Your task to perform on an android device: make emails show in primary in the gmail app Image 0: 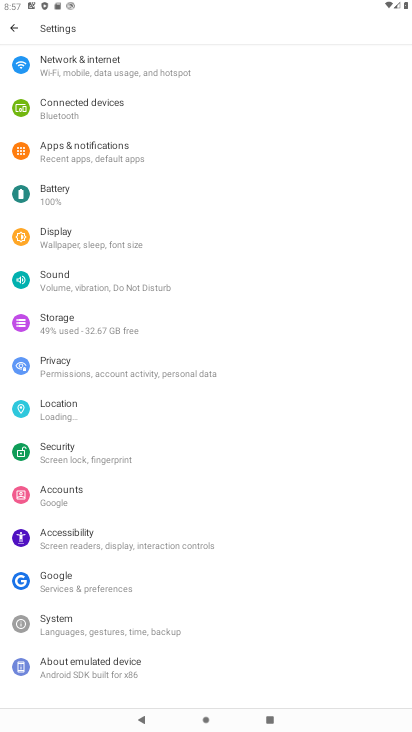
Step 0: press home button
Your task to perform on an android device: make emails show in primary in the gmail app Image 1: 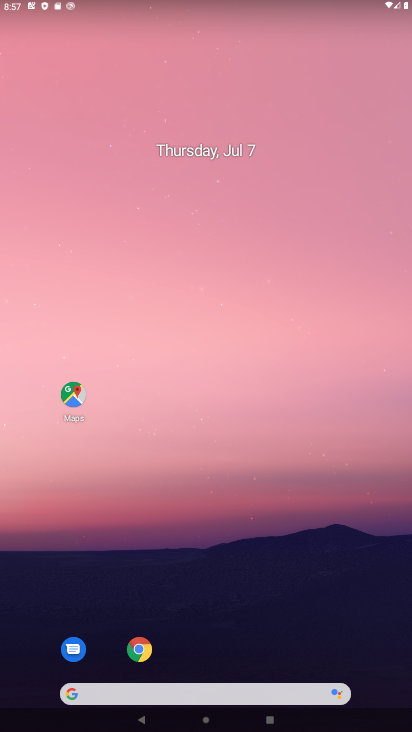
Step 1: drag from (230, 720) to (224, 168)
Your task to perform on an android device: make emails show in primary in the gmail app Image 2: 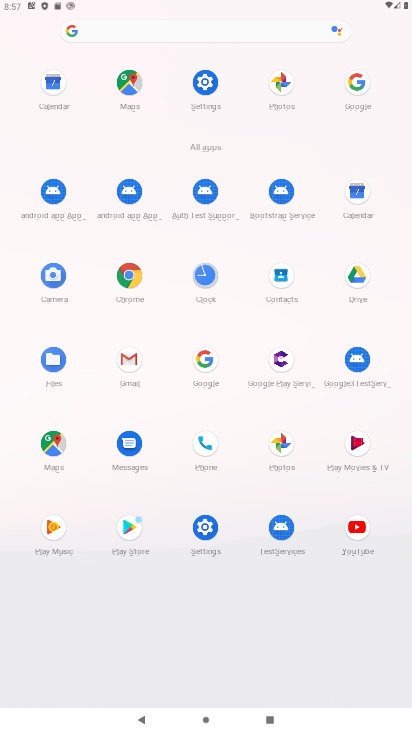
Step 2: click (127, 362)
Your task to perform on an android device: make emails show in primary in the gmail app Image 3: 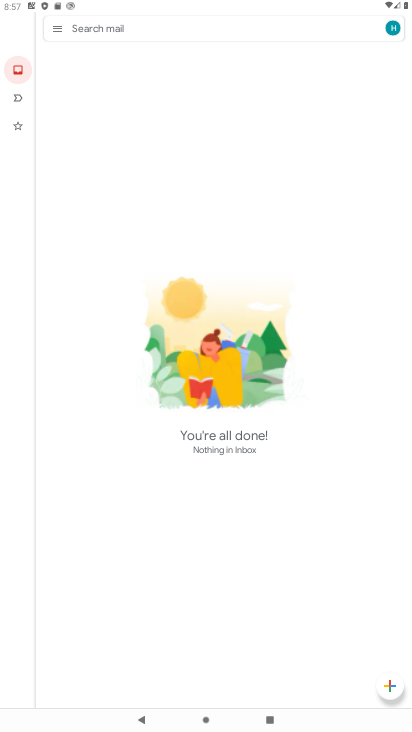
Step 3: click (63, 20)
Your task to perform on an android device: make emails show in primary in the gmail app Image 4: 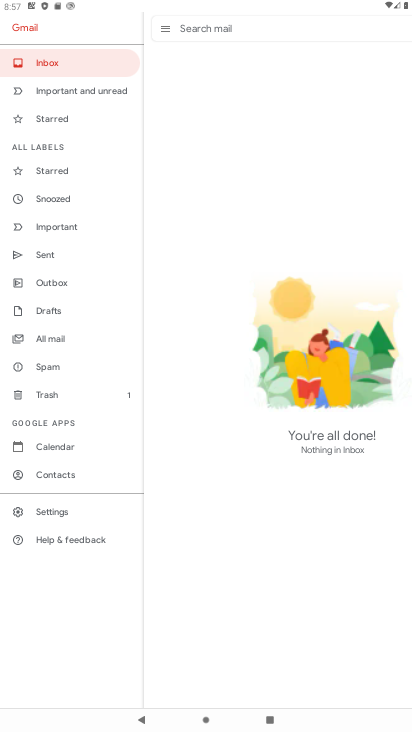
Step 4: click (47, 510)
Your task to perform on an android device: make emails show in primary in the gmail app Image 5: 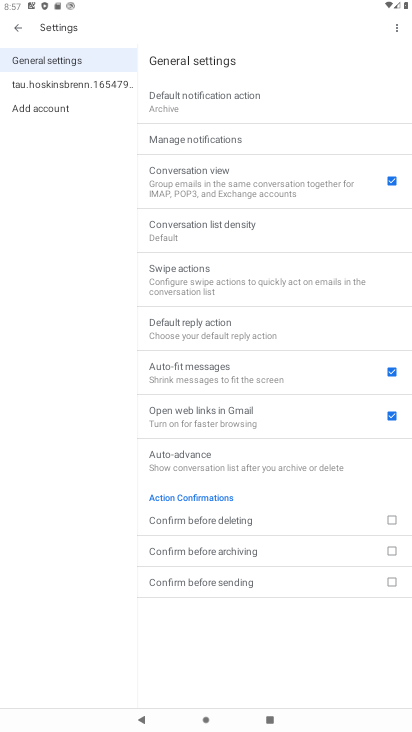
Step 5: click (74, 84)
Your task to perform on an android device: make emails show in primary in the gmail app Image 6: 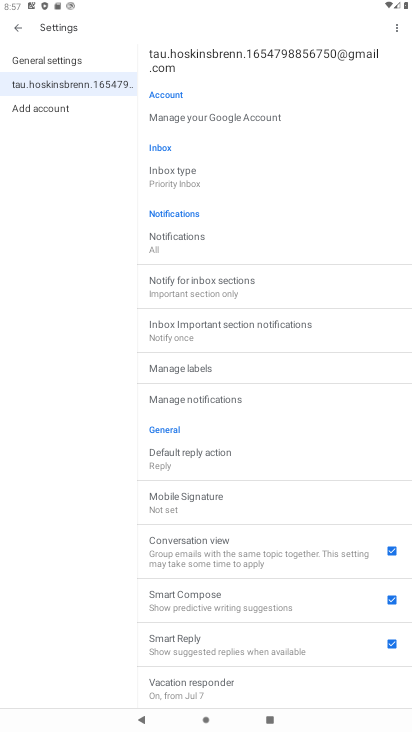
Step 6: click (163, 169)
Your task to perform on an android device: make emails show in primary in the gmail app Image 7: 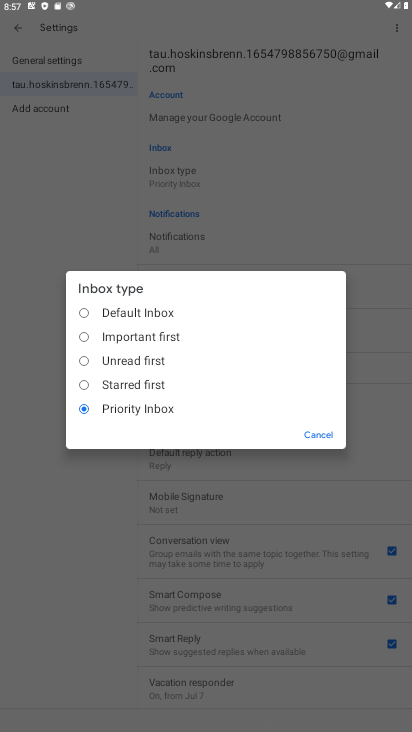
Step 7: click (84, 304)
Your task to perform on an android device: make emails show in primary in the gmail app Image 8: 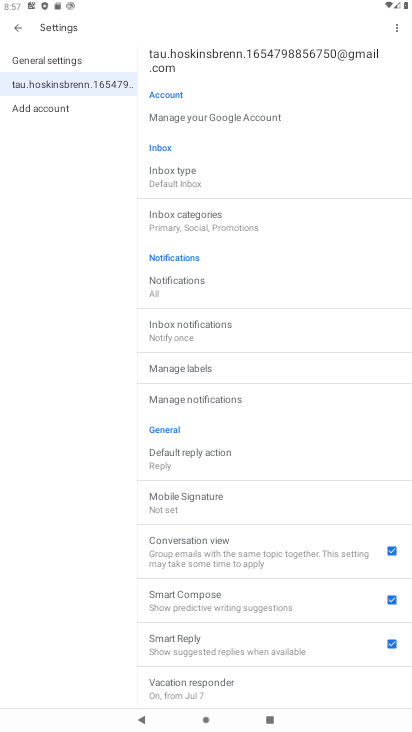
Step 8: click (195, 221)
Your task to perform on an android device: make emails show in primary in the gmail app Image 9: 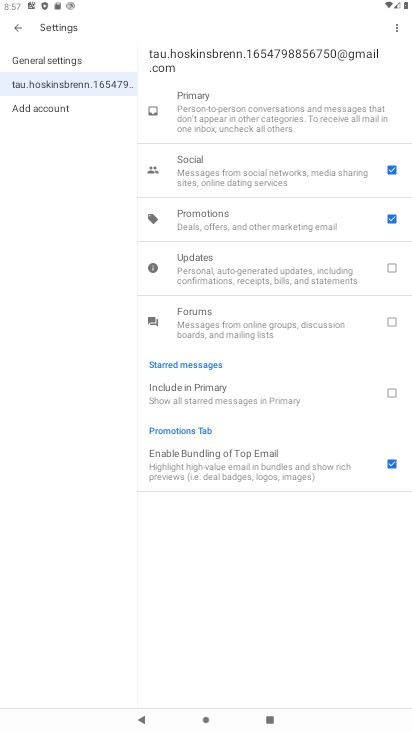
Step 9: click (394, 214)
Your task to perform on an android device: make emails show in primary in the gmail app Image 10: 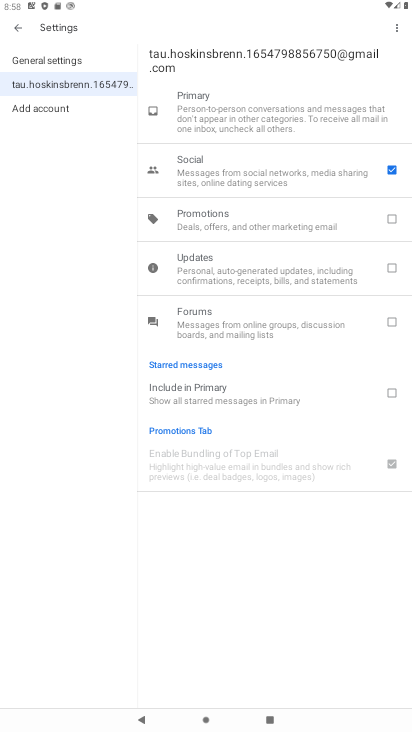
Step 10: click (391, 169)
Your task to perform on an android device: make emails show in primary in the gmail app Image 11: 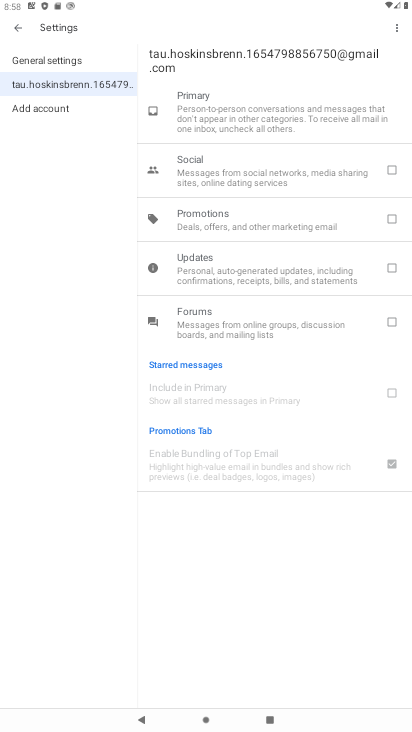
Step 11: click (15, 25)
Your task to perform on an android device: make emails show in primary in the gmail app Image 12: 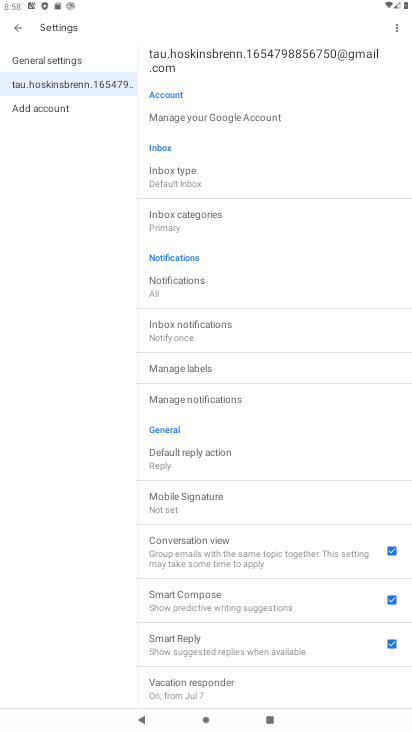
Step 12: task complete